Your task to perform on an android device: change notification settings in the gmail app Image 0: 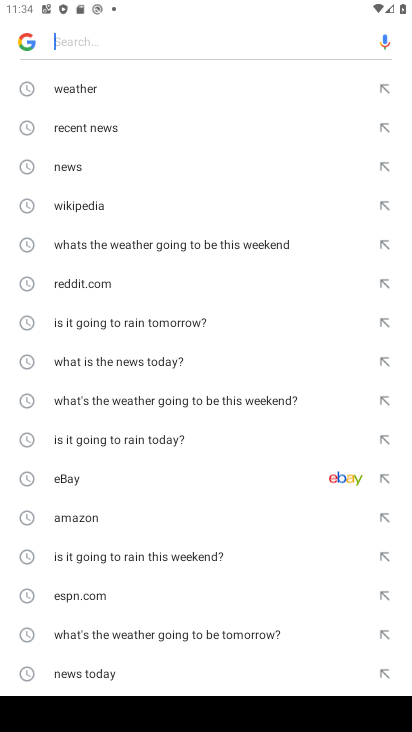
Step 0: press home button
Your task to perform on an android device: change notification settings in the gmail app Image 1: 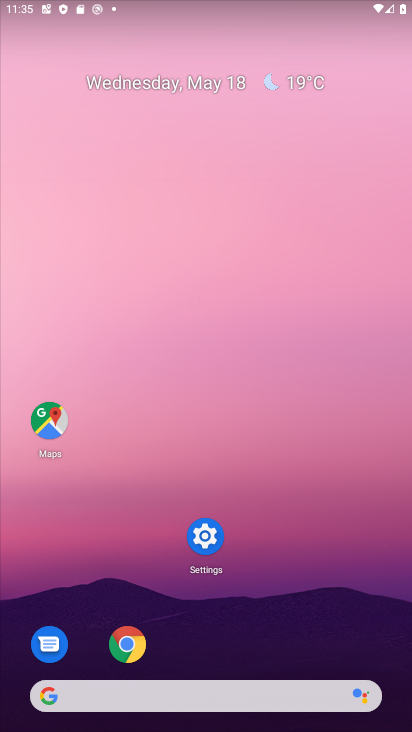
Step 1: drag from (330, 616) to (156, 17)
Your task to perform on an android device: change notification settings in the gmail app Image 2: 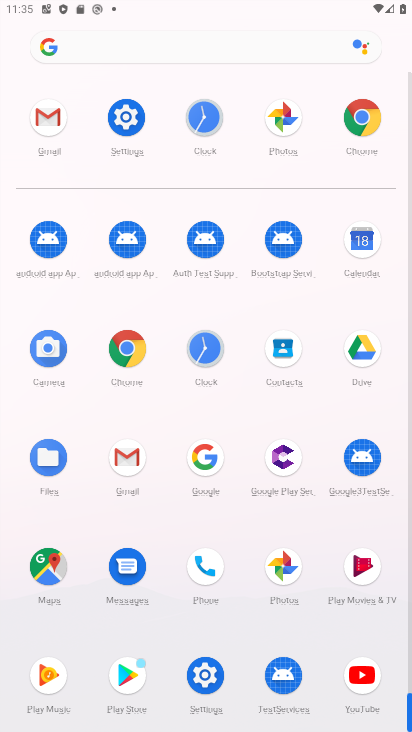
Step 2: click (47, 122)
Your task to perform on an android device: change notification settings in the gmail app Image 3: 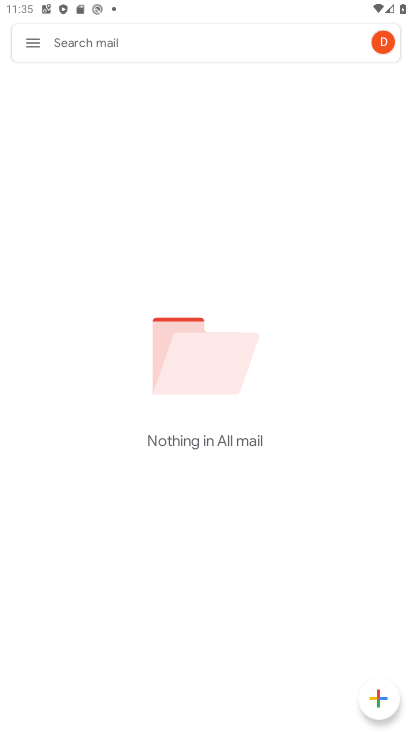
Step 3: click (37, 41)
Your task to perform on an android device: change notification settings in the gmail app Image 4: 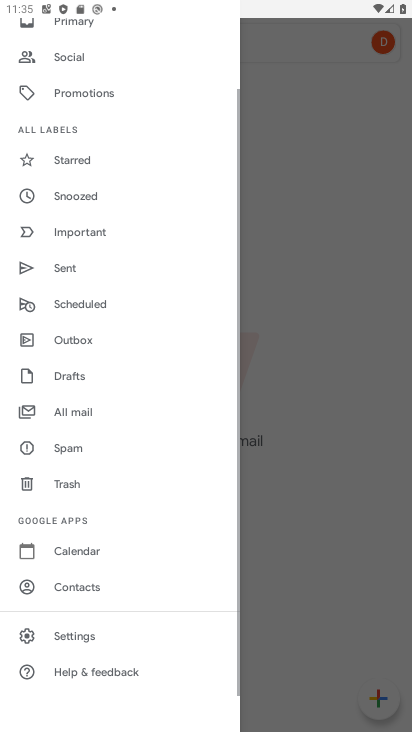
Step 4: click (102, 633)
Your task to perform on an android device: change notification settings in the gmail app Image 5: 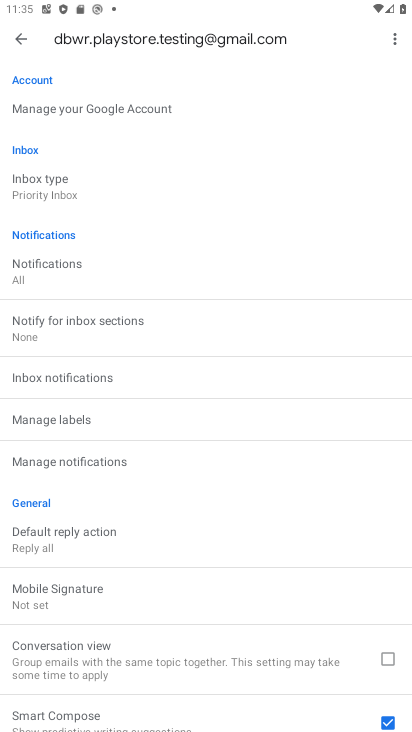
Step 5: click (101, 460)
Your task to perform on an android device: change notification settings in the gmail app Image 6: 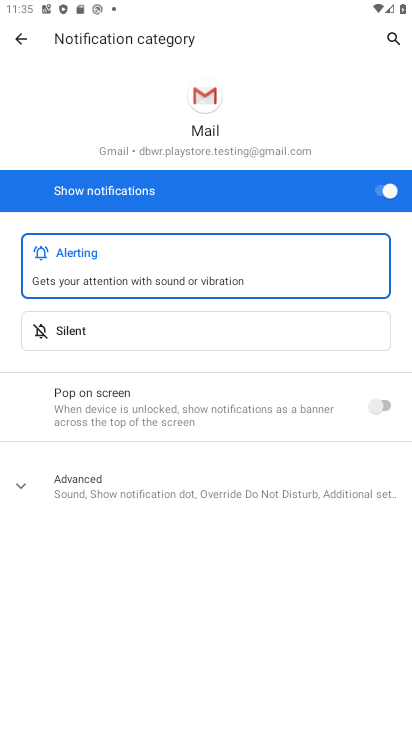
Step 6: click (385, 185)
Your task to perform on an android device: change notification settings in the gmail app Image 7: 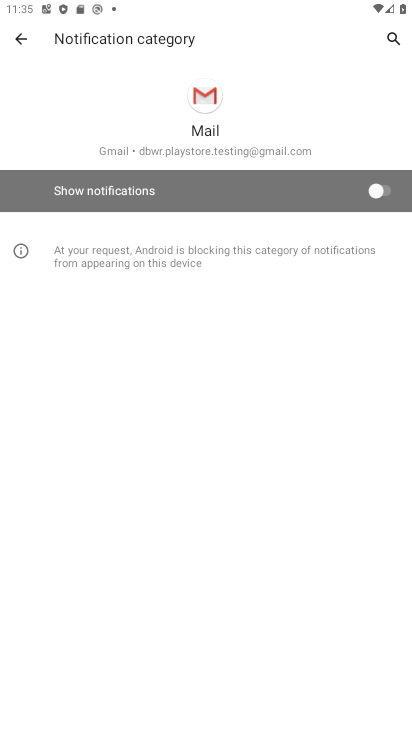
Step 7: task complete